Your task to perform on an android device: What's the weather going to be tomorrow? Image 0: 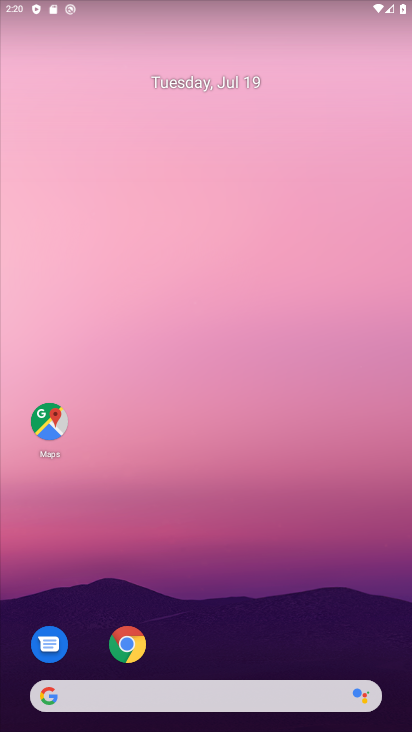
Step 0: click (222, 702)
Your task to perform on an android device: What's the weather going to be tomorrow? Image 1: 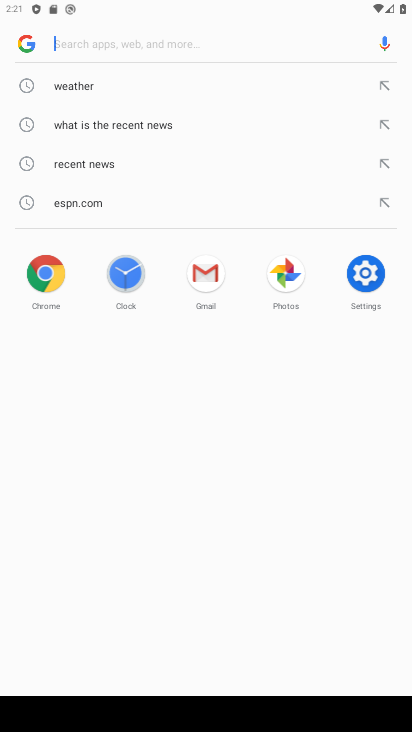
Step 1: type "what's the weather going to be tomorrow"
Your task to perform on an android device: What's the weather going to be tomorrow? Image 2: 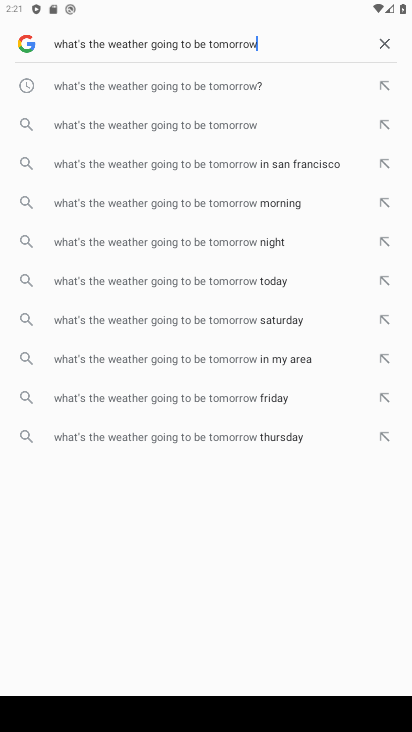
Step 2: click (220, 88)
Your task to perform on an android device: What's the weather going to be tomorrow? Image 3: 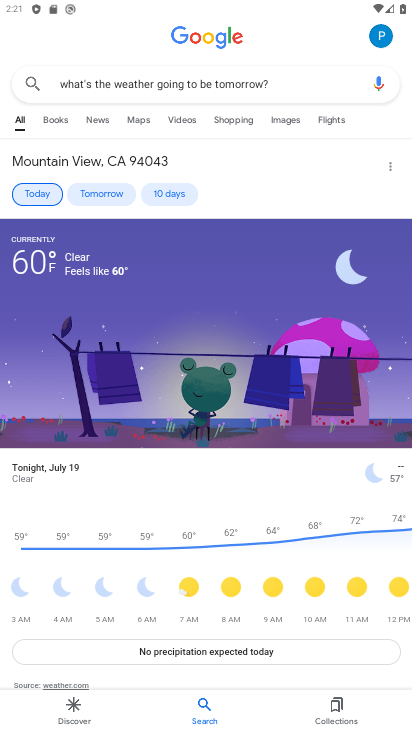
Step 3: task complete